Your task to perform on an android device: Search for pizza restaurants on Maps Image 0: 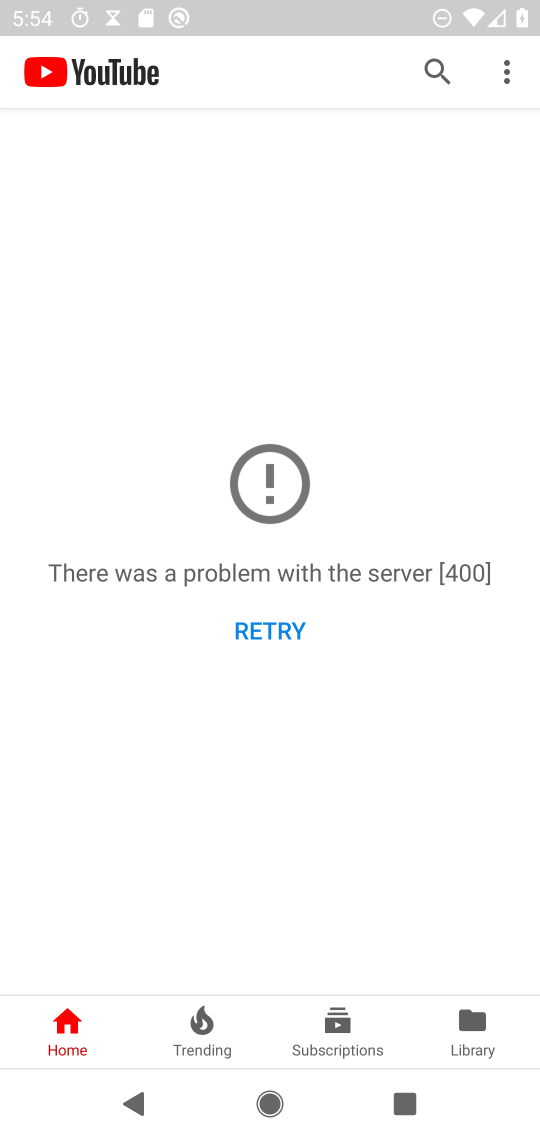
Step 0: press home button
Your task to perform on an android device: Search for pizza restaurants on Maps Image 1: 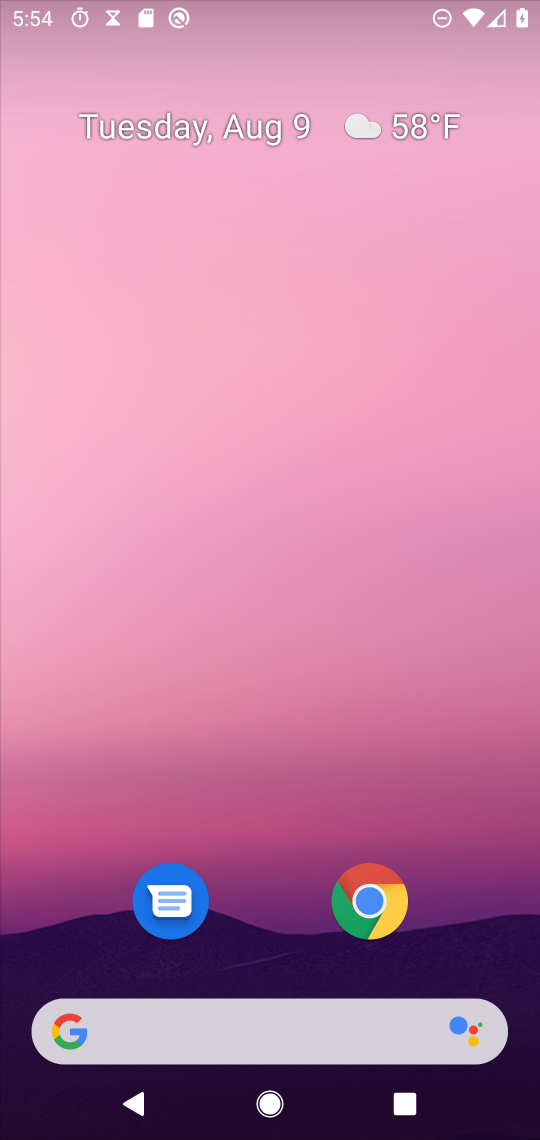
Step 1: drag from (240, 959) to (340, 105)
Your task to perform on an android device: Search for pizza restaurants on Maps Image 2: 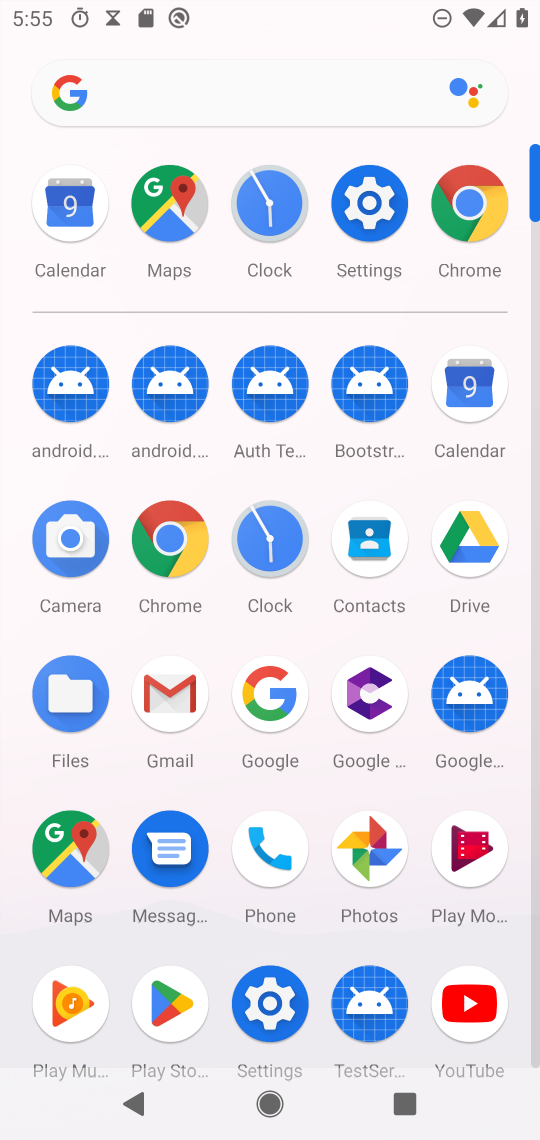
Step 2: click (47, 818)
Your task to perform on an android device: Search for pizza restaurants on Maps Image 3: 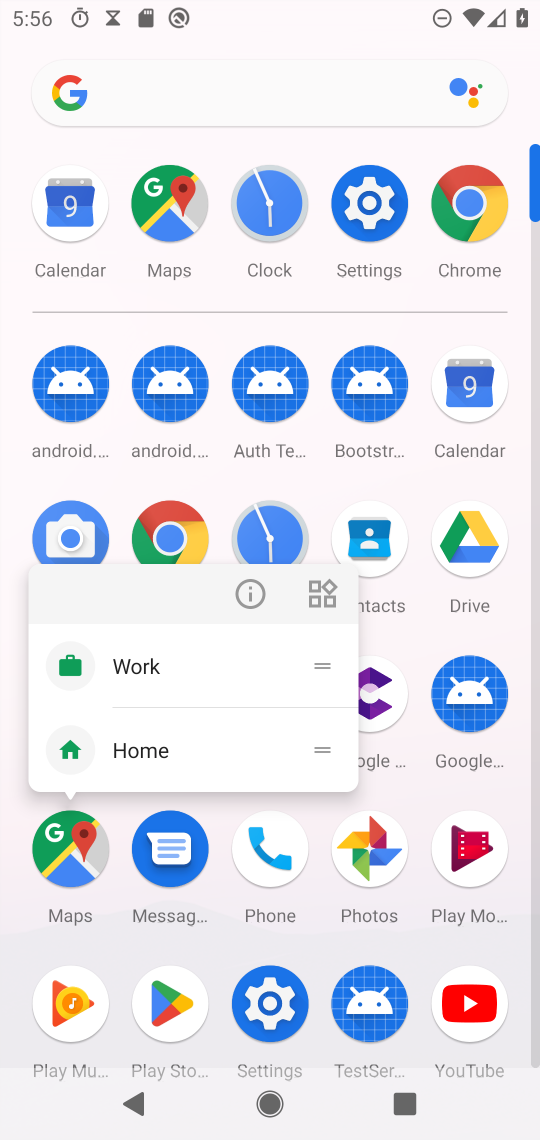
Step 3: click (67, 837)
Your task to perform on an android device: Search for pizza restaurants on Maps Image 4: 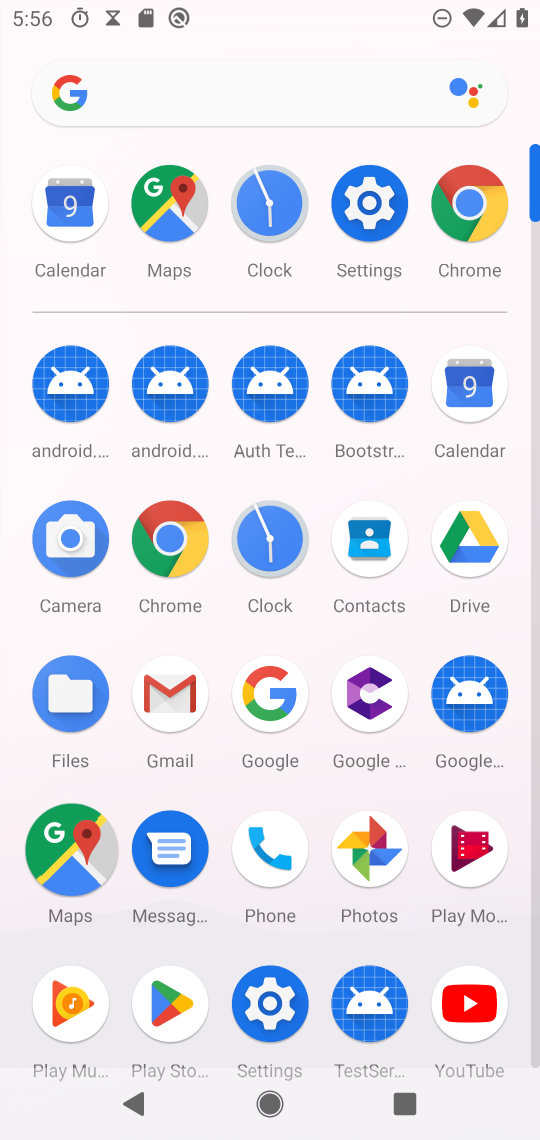
Step 4: click (67, 837)
Your task to perform on an android device: Search for pizza restaurants on Maps Image 5: 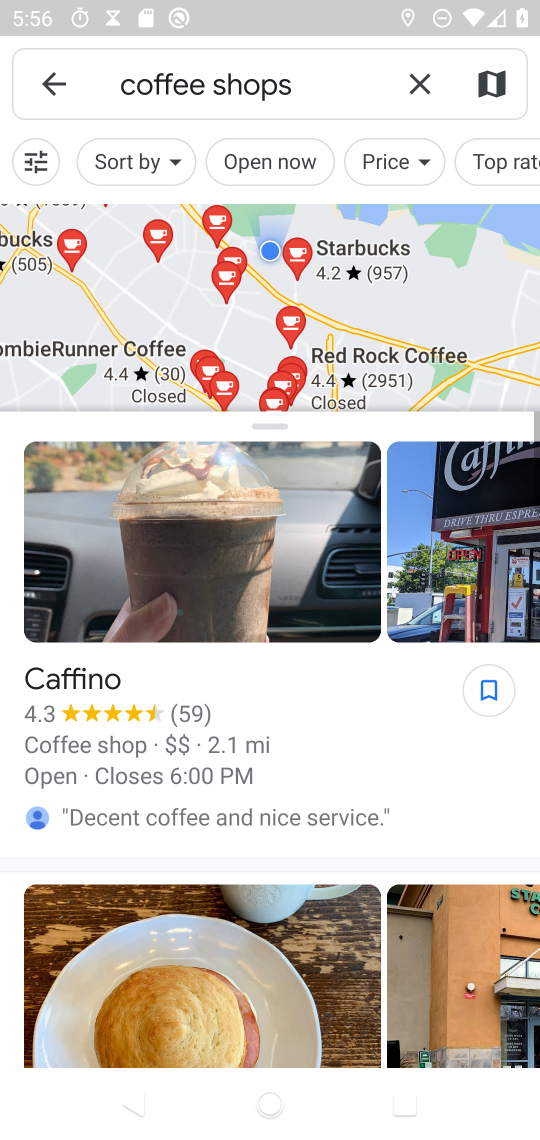
Step 5: click (416, 74)
Your task to perform on an android device: Search for pizza restaurants on Maps Image 6: 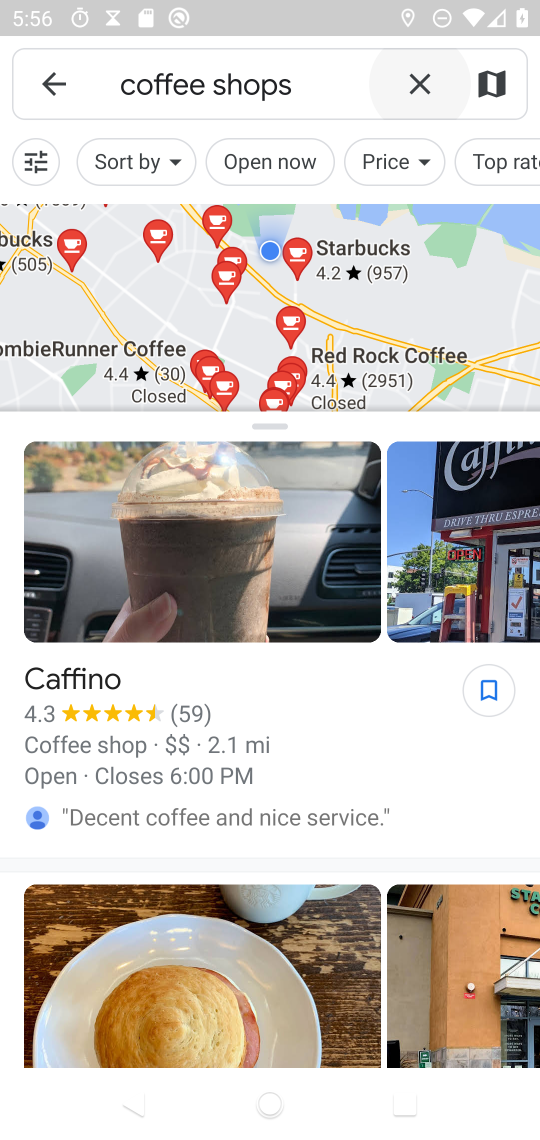
Step 6: click (416, 74)
Your task to perform on an android device: Search for pizza restaurants on Maps Image 7: 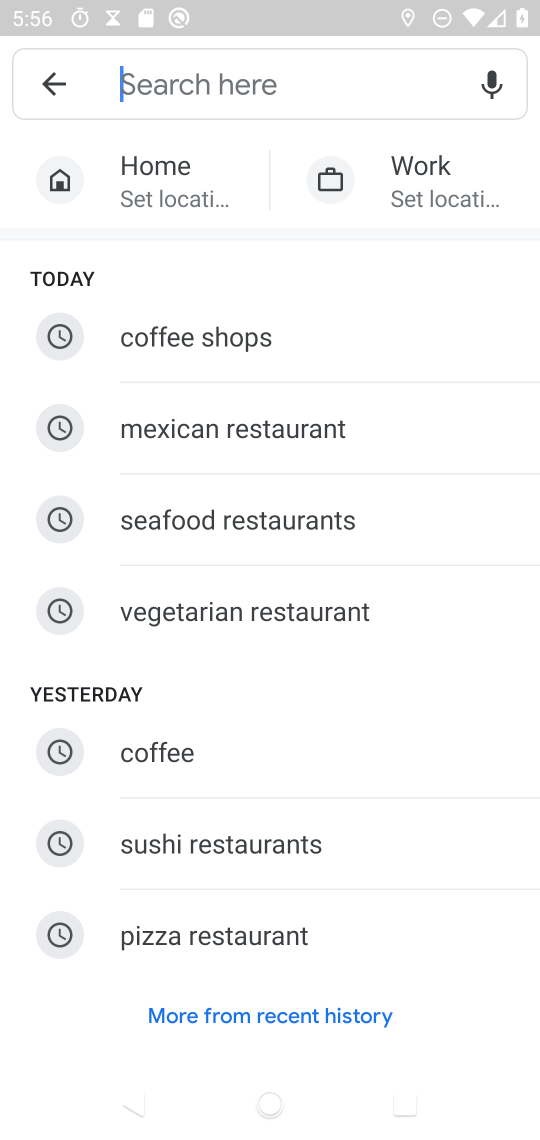
Step 7: click (325, 86)
Your task to perform on an android device: Search for pizza restaurants on Maps Image 8: 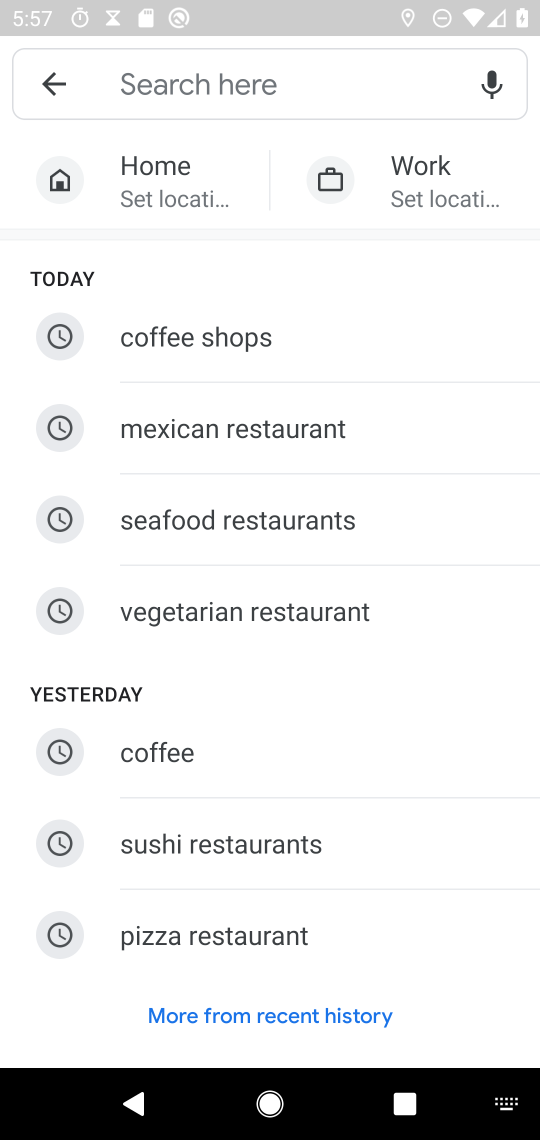
Step 8: type "pizza"
Your task to perform on an android device: Search for pizza restaurants on Maps Image 9: 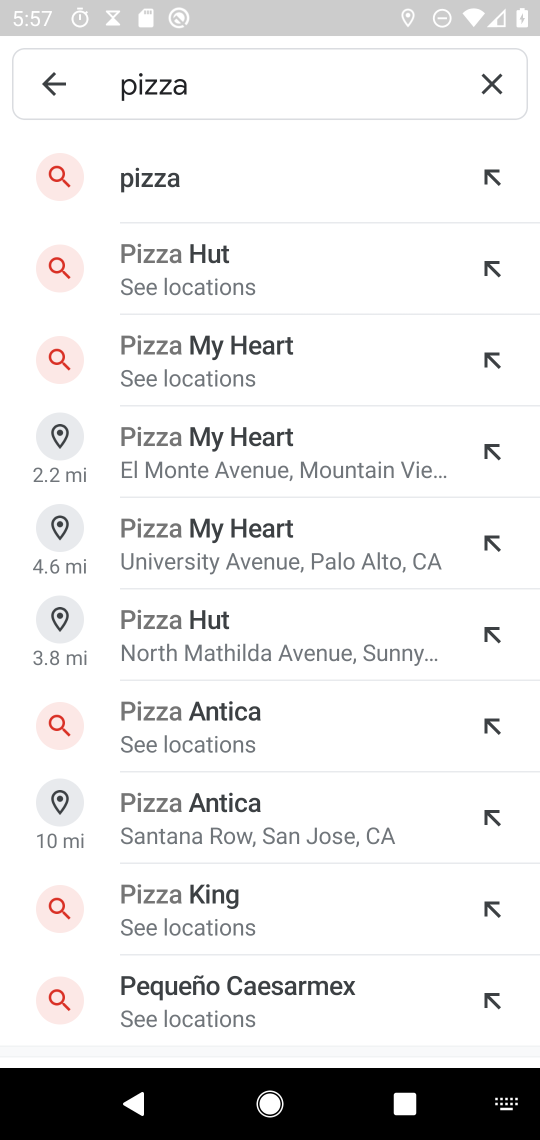
Step 9: type "restaurants"
Your task to perform on an android device: Search for pizza restaurants on Maps Image 10: 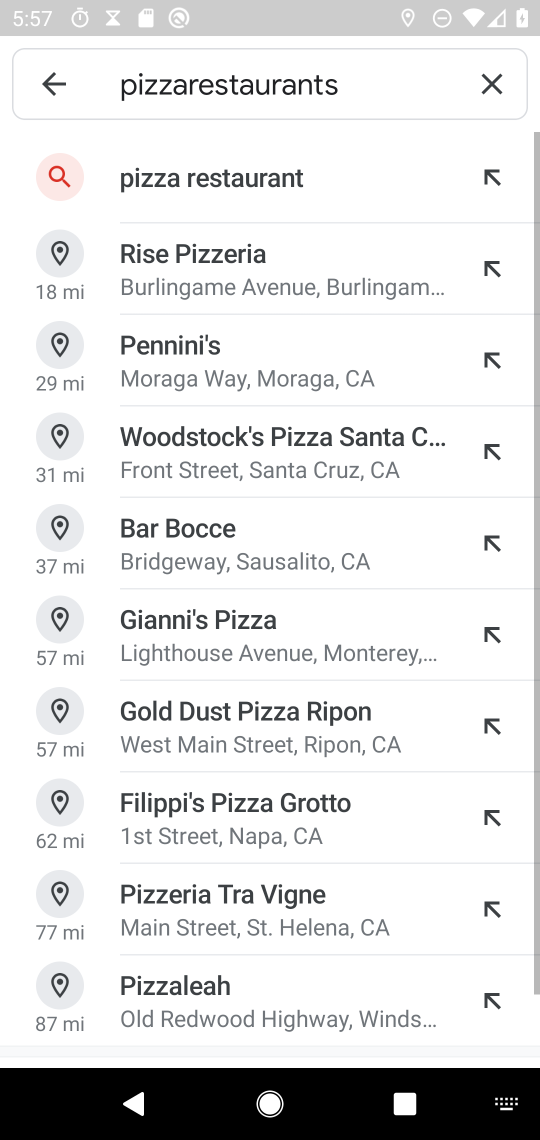
Step 10: click (236, 168)
Your task to perform on an android device: Search for pizza restaurants on Maps Image 11: 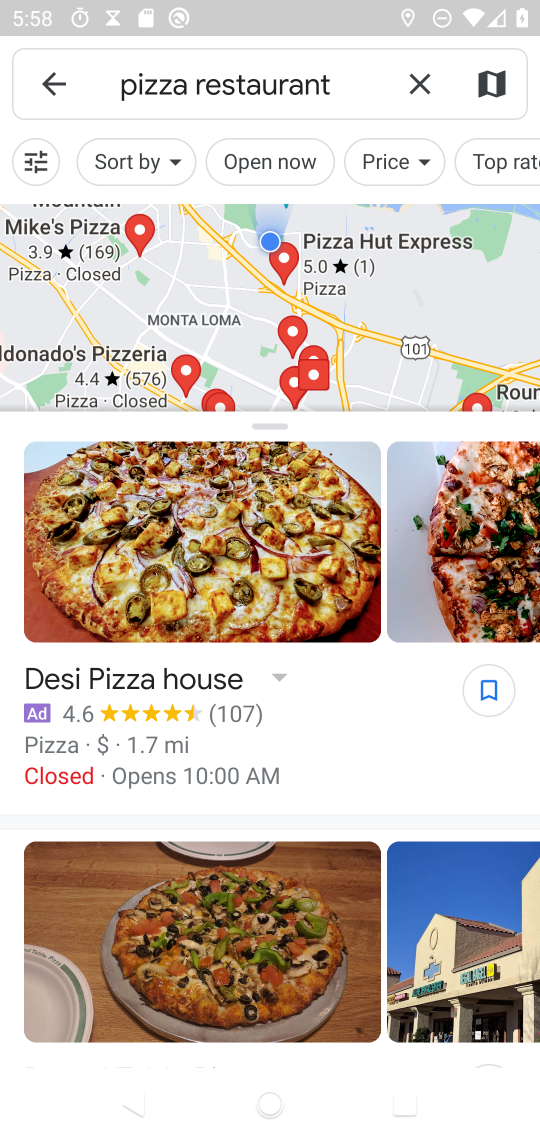
Step 11: task complete